Your task to perform on an android device: Open the map Image 0: 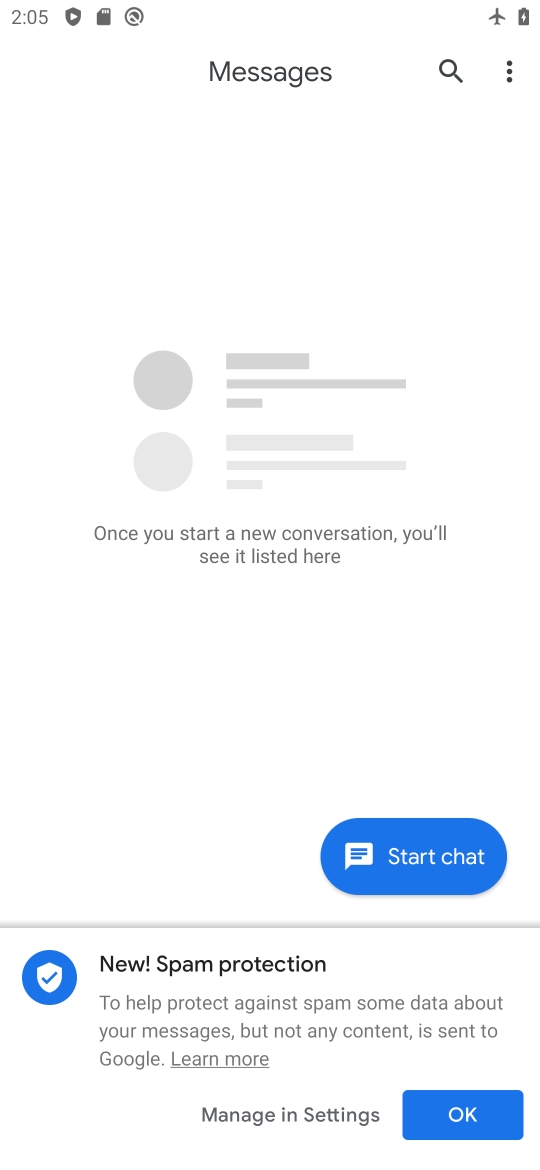
Step 0: press home button
Your task to perform on an android device: Open the map Image 1: 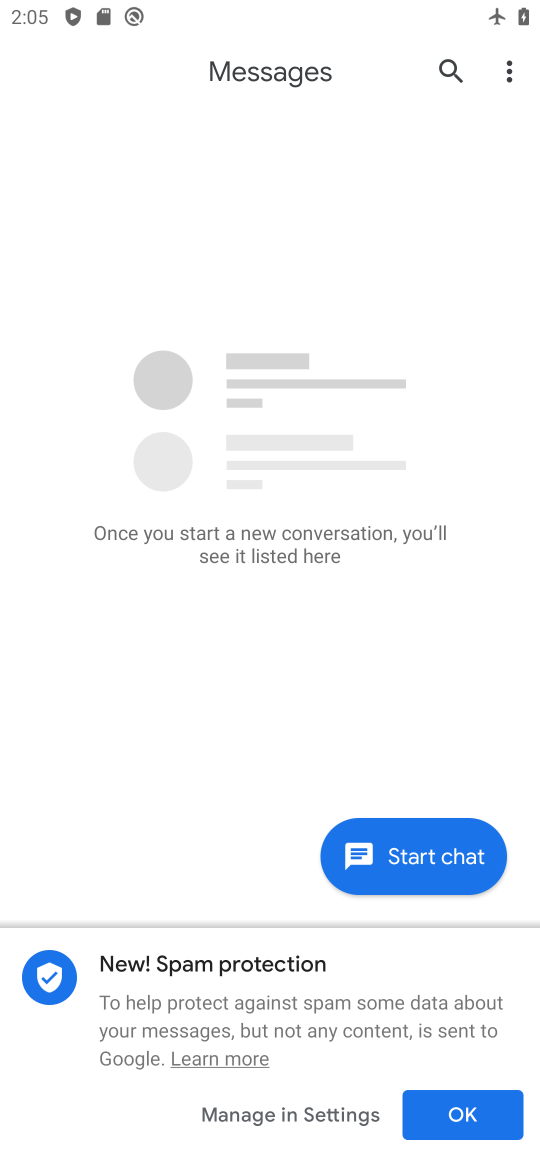
Step 1: press home button
Your task to perform on an android device: Open the map Image 2: 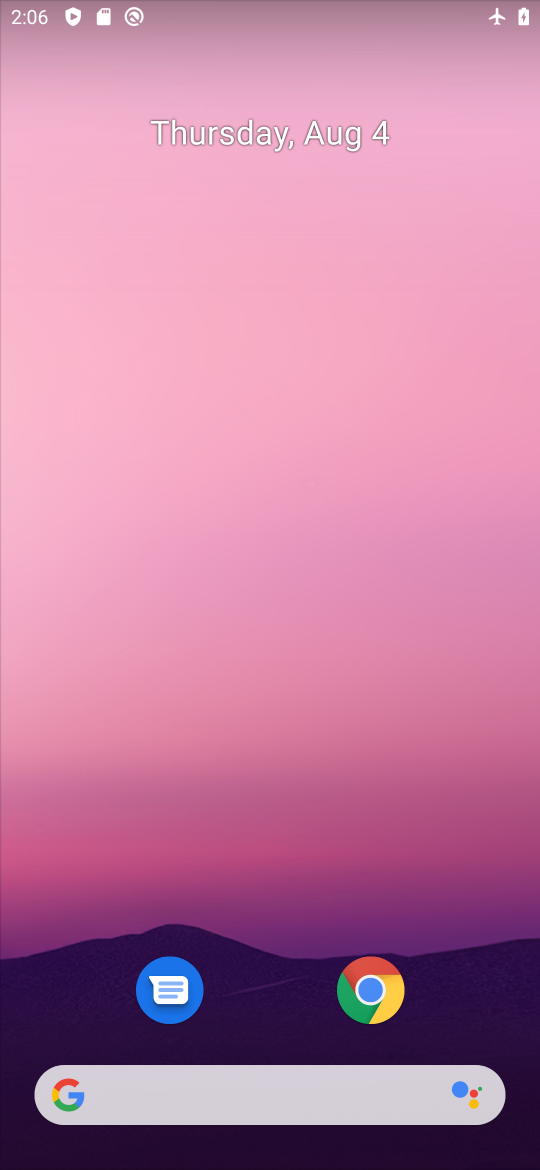
Step 2: drag from (318, 970) to (395, 463)
Your task to perform on an android device: Open the map Image 3: 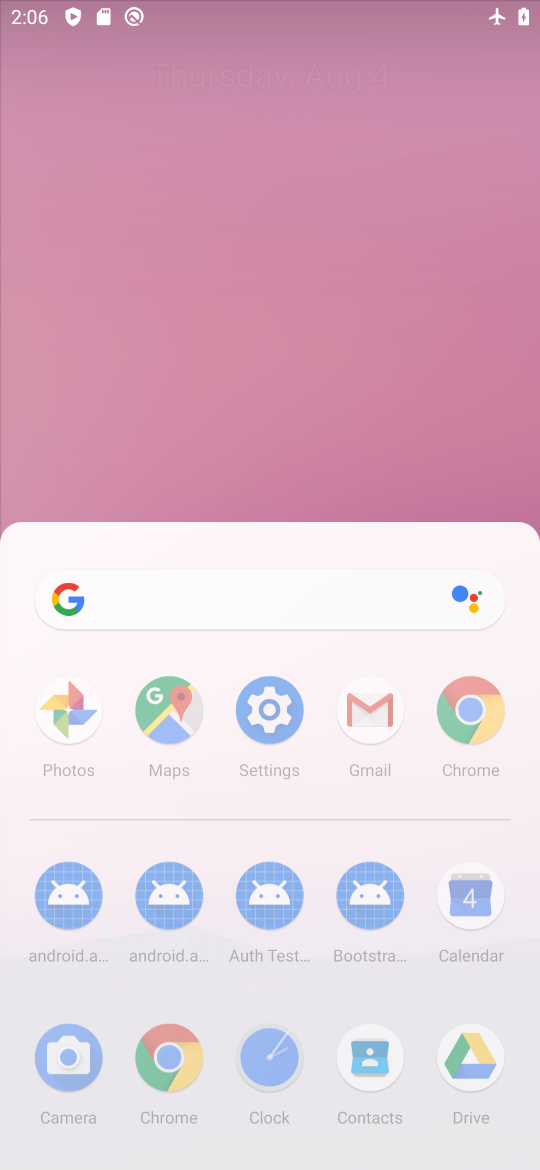
Step 3: click (395, 463)
Your task to perform on an android device: Open the map Image 4: 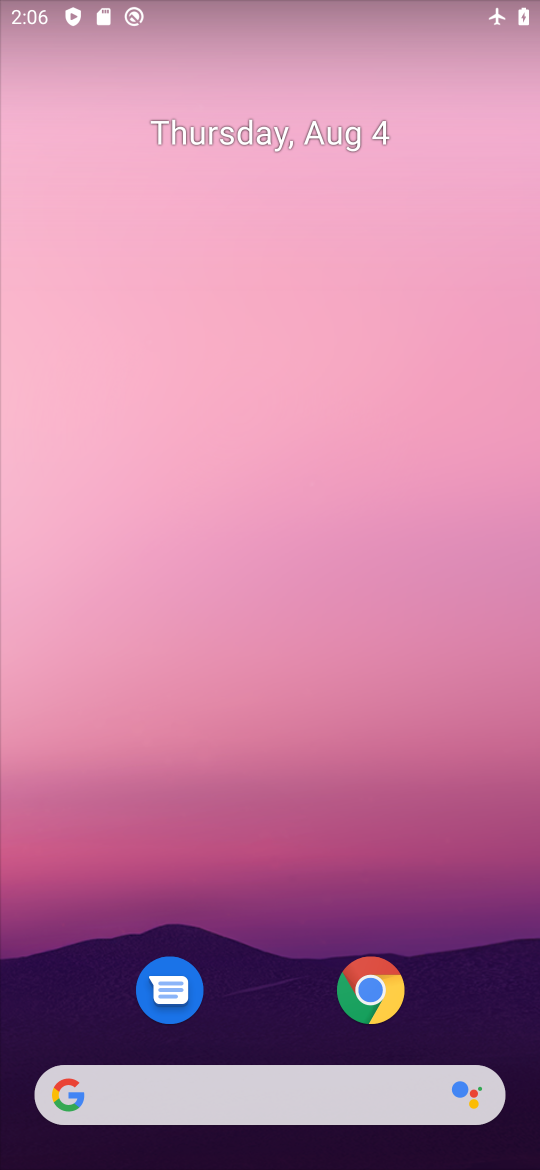
Step 4: drag from (271, 1061) to (401, 284)
Your task to perform on an android device: Open the map Image 5: 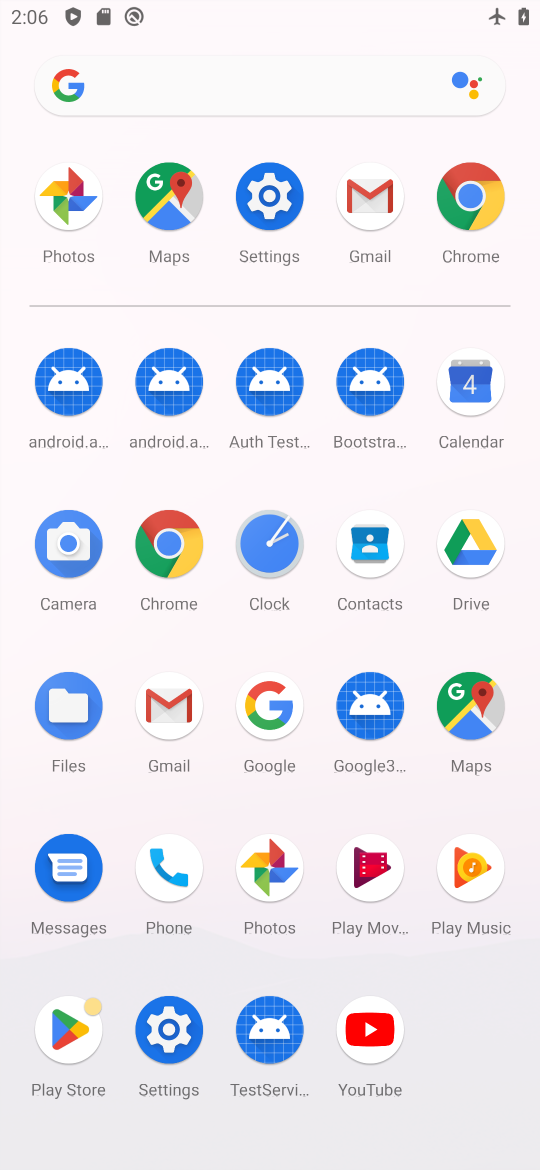
Step 5: click (159, 270)
Your task to perform on an android device: Open the map Image 6: 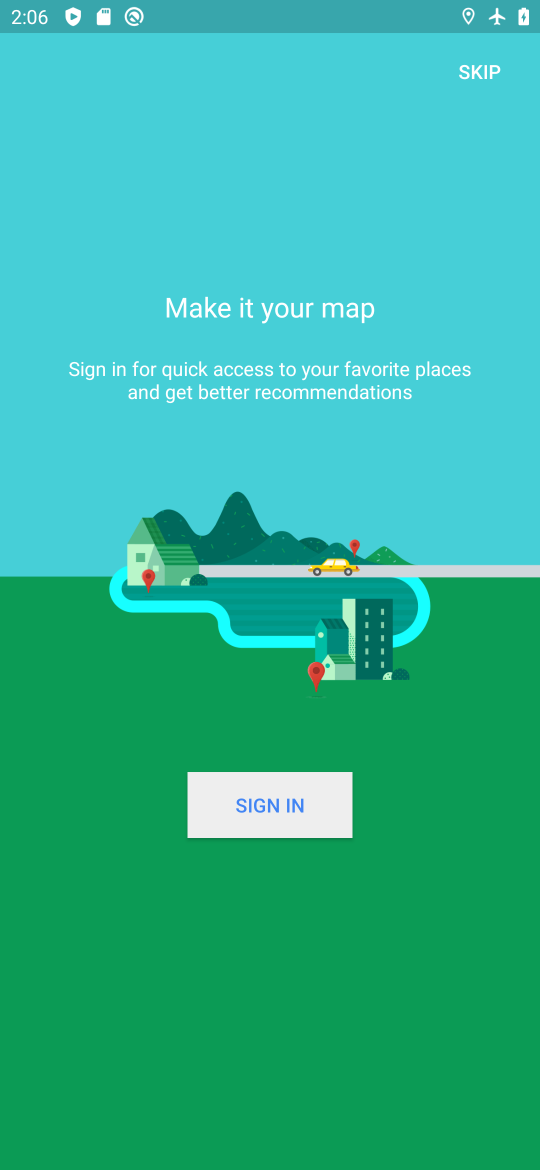
Step 6: click (159, 270)
Your task to perform on an android device: Open the map Image 7: 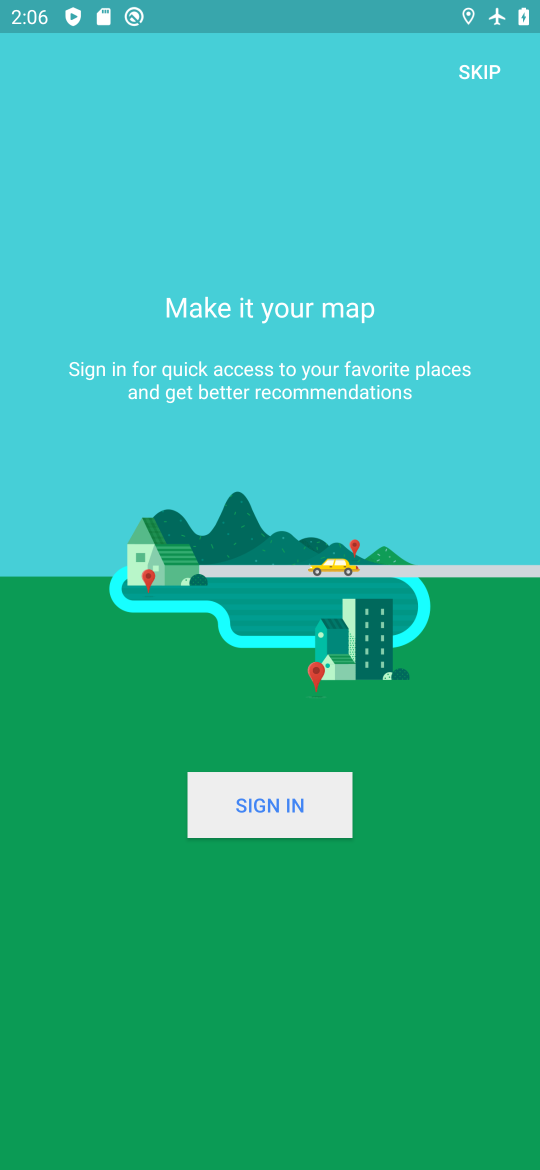
Step 7: task complete